Your task to perform on an android device: clear all cookies in the chrome app Image 0: 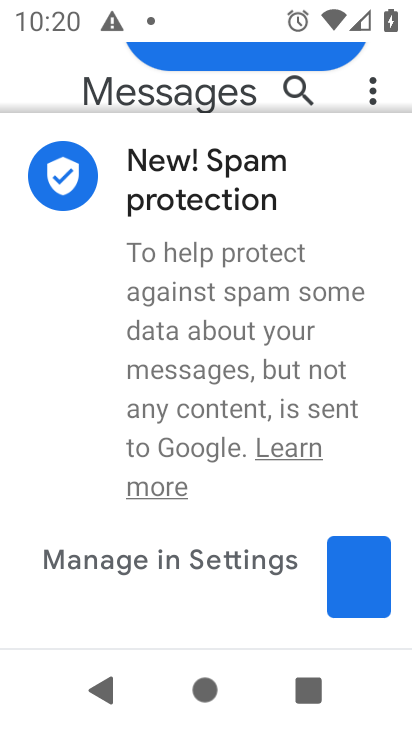
Step 0: press home button
Your task to perform on an android device: clear all cookies in the chrome app Image 1: 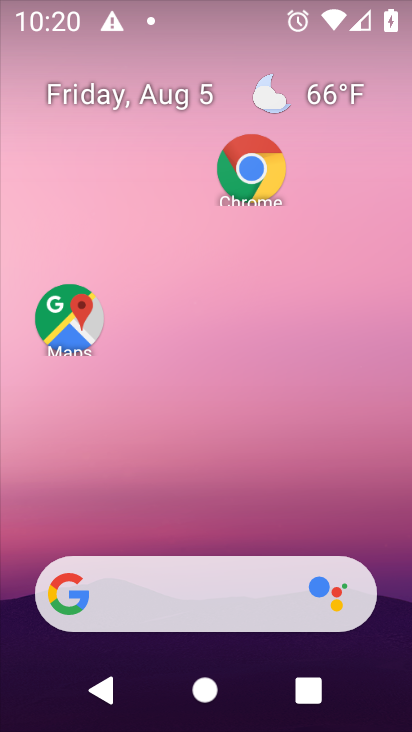
Step 1: click (253, 158)
Your task to perform on an android device: clear all cookies in the chrome app Image 2: 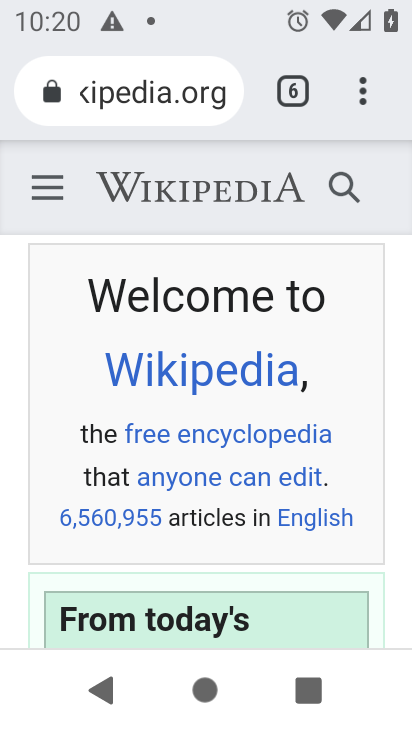
Step 2: click (352, 99)
Your task to perform on an android device: clear all cookies in the chrome app Image 3: 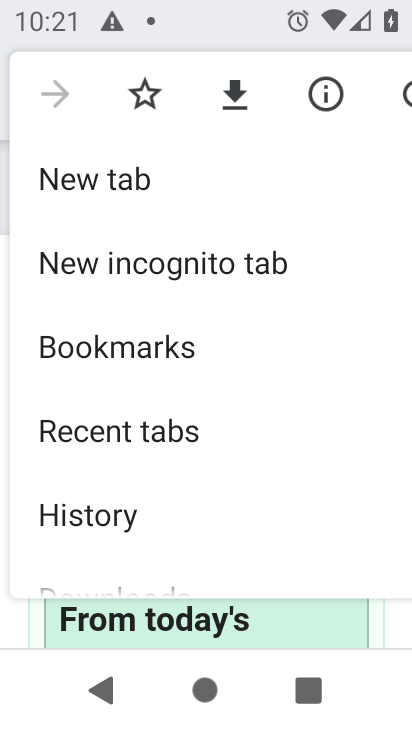
Step 3: click (122, 519)
Your task to perform on an android device: clear all cookies in the chrome app Image 4: 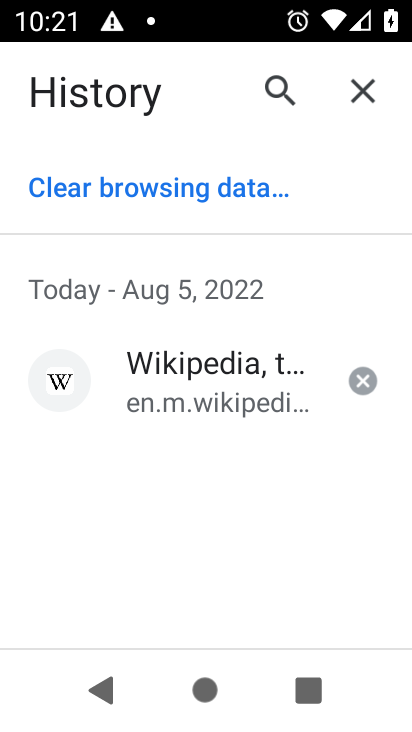
Step 4: click (116, 193)
Your task to perform on an android device: clear all cookies in the chrome app Image 5: 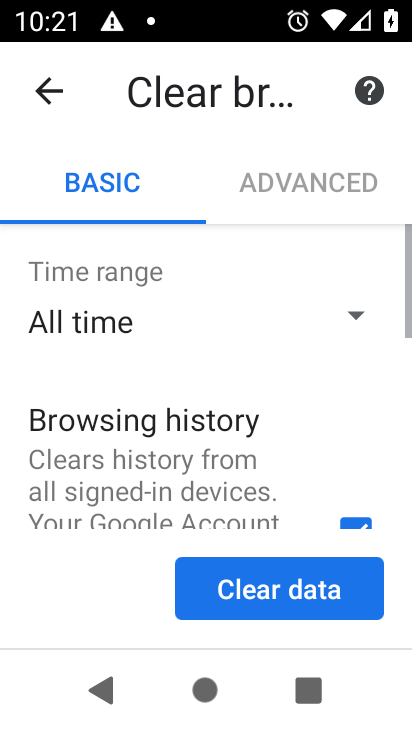
Step 5: drag from (227, 481) to (236, 218)
Your task to perform on an android device: clear all cookies in the chrome app Image 6: 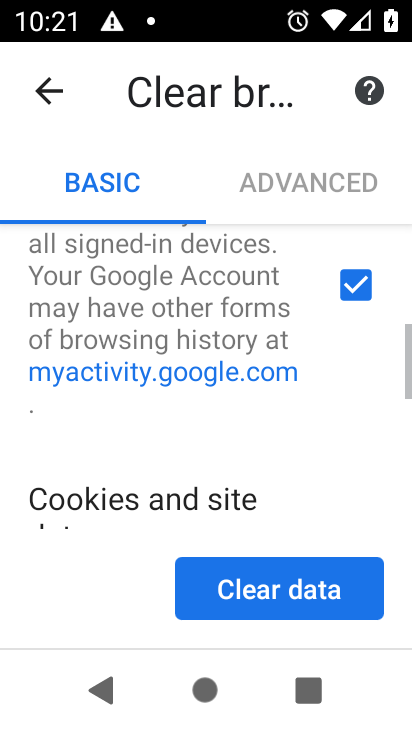
Step 6: drag from (228, 472) to (228, 236)
Your task to perform on an android device: clear all cookies in the chrome app Image 7: 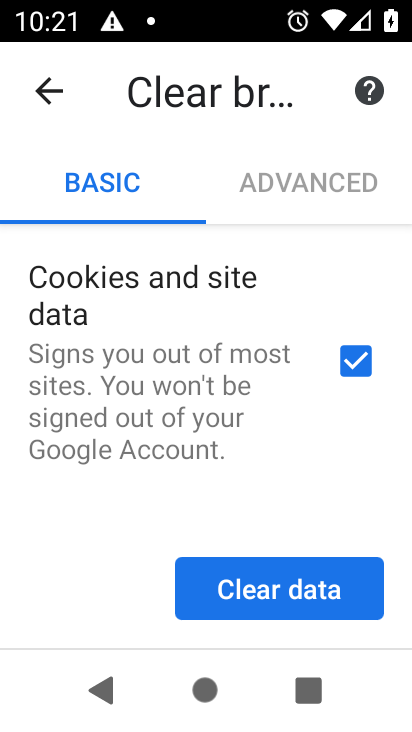
Step 7: drag from (234, 460) to (250, 249)
Your task to perform on an android device: clear all cookies in the chrome app Image 8: 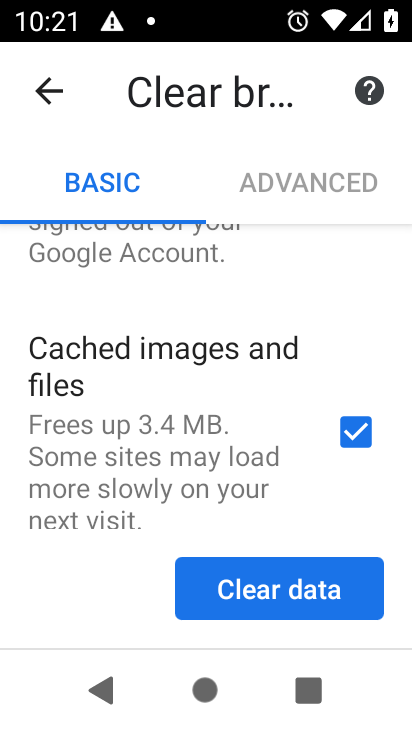
Step 8: click (284, 577)
Your task to perform on an android device: clear all cookies in the chrome app Image 9: 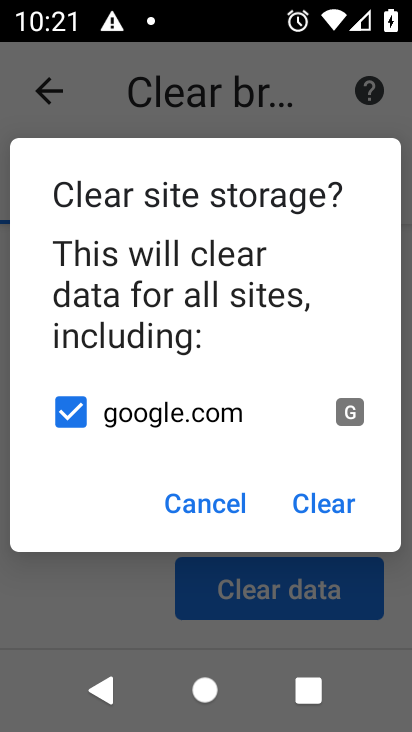
Step 9: click (344, 490)
Your task to perform on an android device: clear all cookies in the chrome app Image 10: 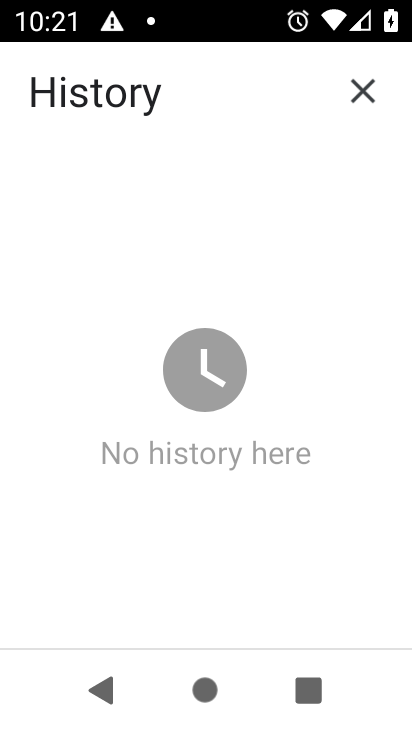
Step 10: task complete